Your task to perform on an android device: toggle javascript in the chrome app Image 0: 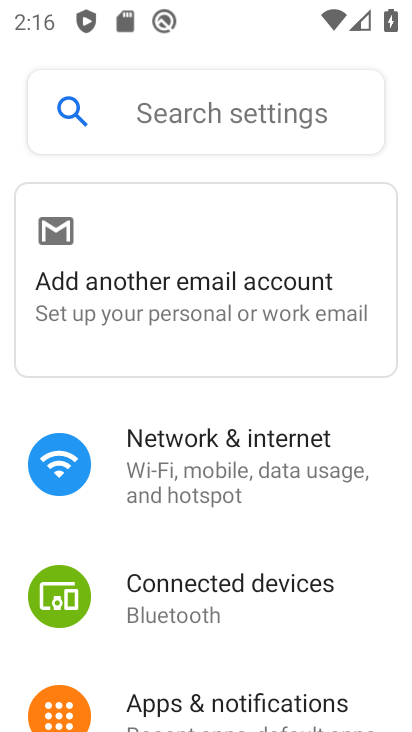
Step 0: press back button
Your task to perform on an android device: toggle javascript in the chrome app Image 1: 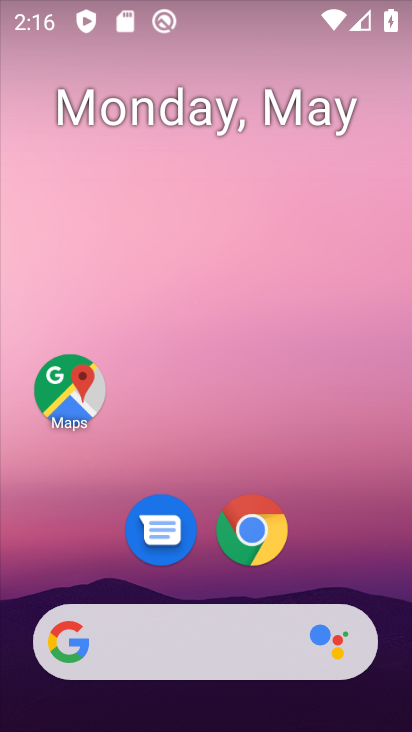
Step 1: click (261, 534)
Your task to perform on an android device: toggle javascript in the chrome app Image 2: 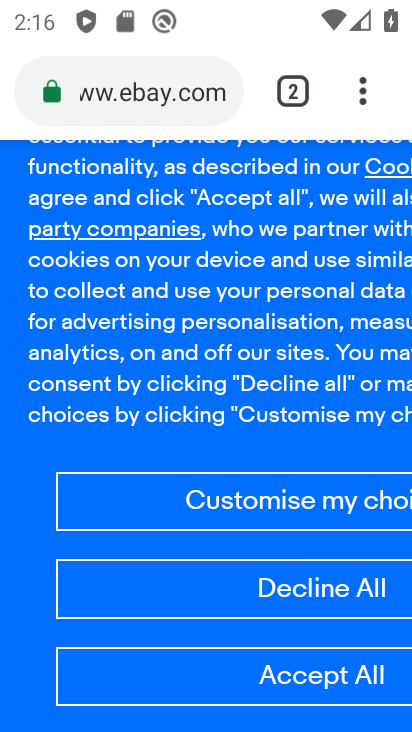
Step 2: click (352, 82)
Your task to perform on an android device: toggle javascript in the chrome app Image 3: 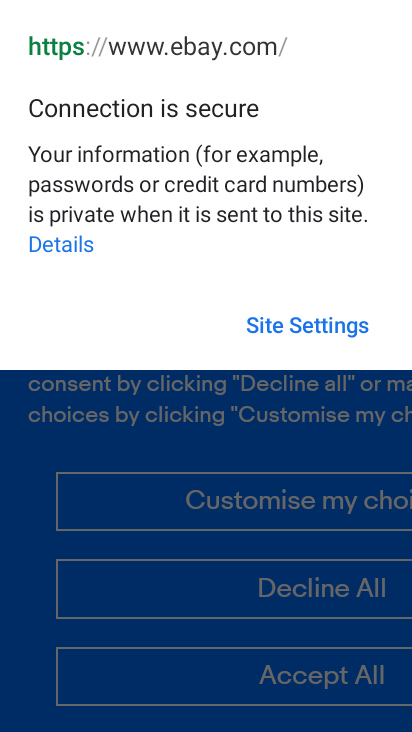
Step 3: click (174, 455)
Your task to perform on an android device: toggle javascript in the chrome app Image 4: 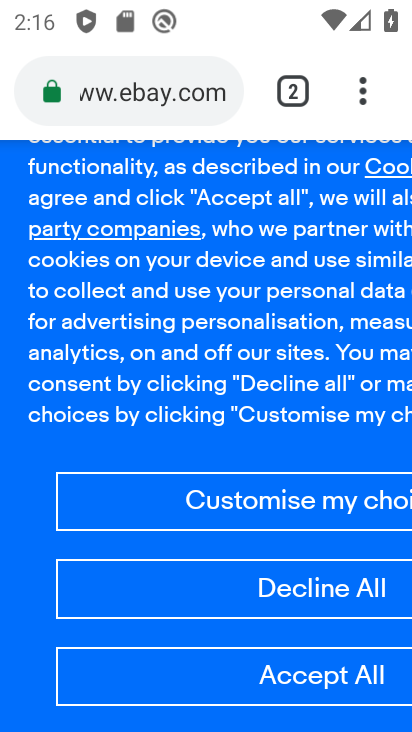
Step 4: drag from (350, 84) to (97, 546)
Your task to perform on an android device: toggle javascript in the chrome app Image 5: 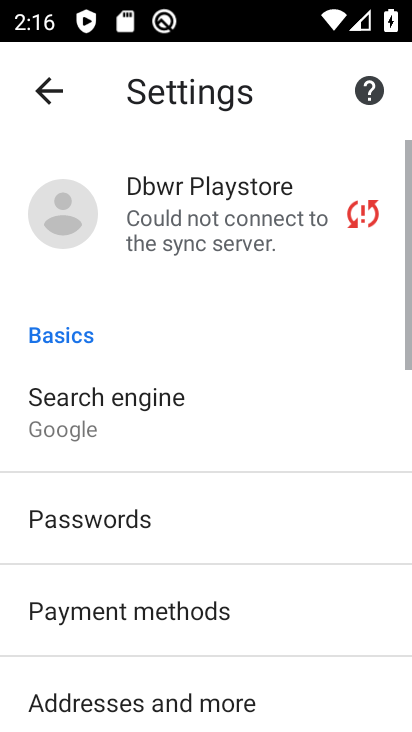
Step 5: drag from (130, 652) to (233, 124)
Your task to perform on an android device: toggle javascript in the chrome app Image 6: 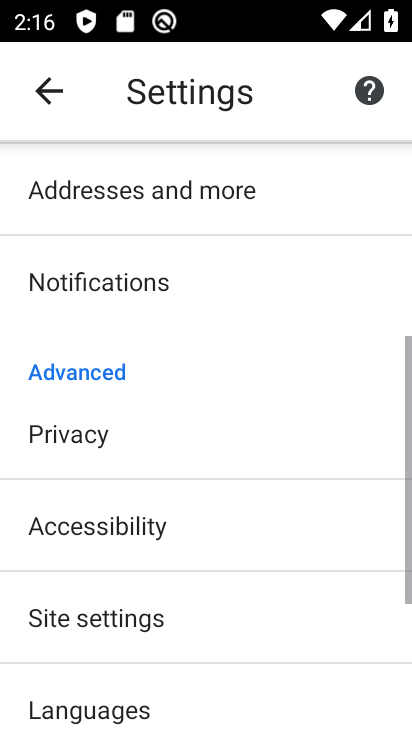
Step 6: click (104, 598)
Your task to perform on an android device: toggle javascript in the chrome app Image 7: 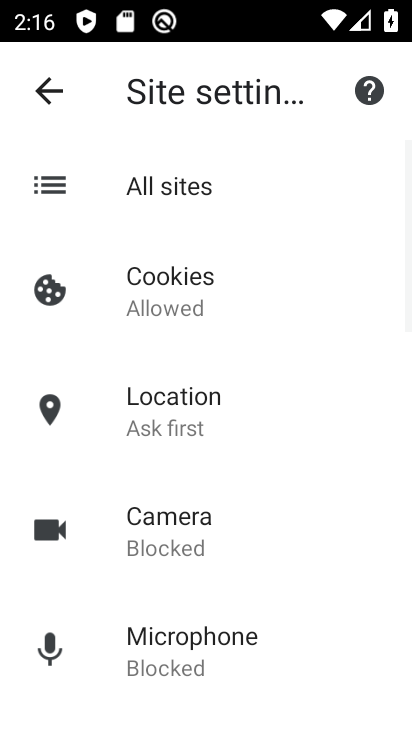
Step 7: drag from (164, 572) to (238, 194)
Your task to perform on an android device: toggle javascript in the chrome app Image 8: 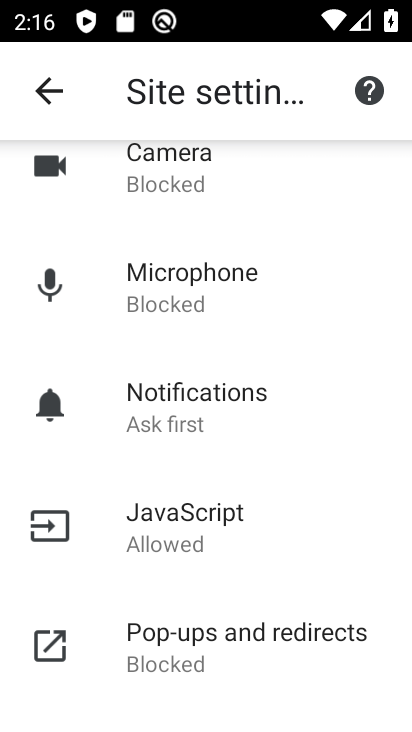
Step 8: click (172, 512)
Your task to perform on an android device: toggle javascript in the chrome app Image 9: 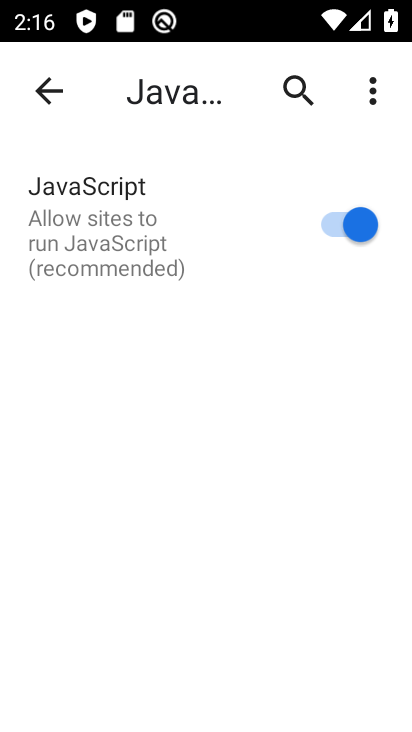
Step 9: click (362, 220)
Your task to perform on an android device: toggle javascript in the chrome app Image 10: 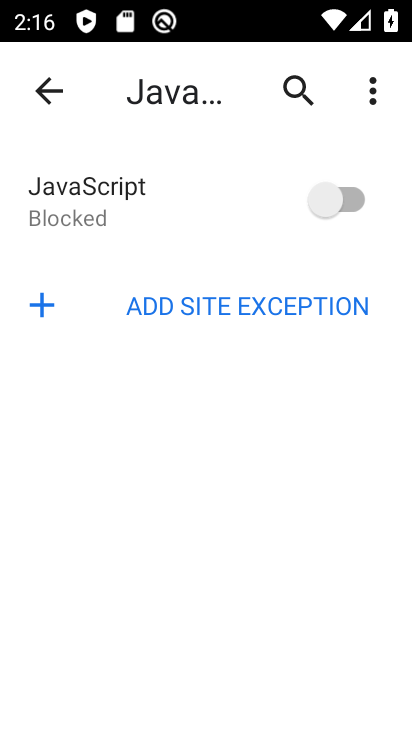
Step 10: task complete